Your task to perform on an android device: toggle pop-ups in chrome Image 0: 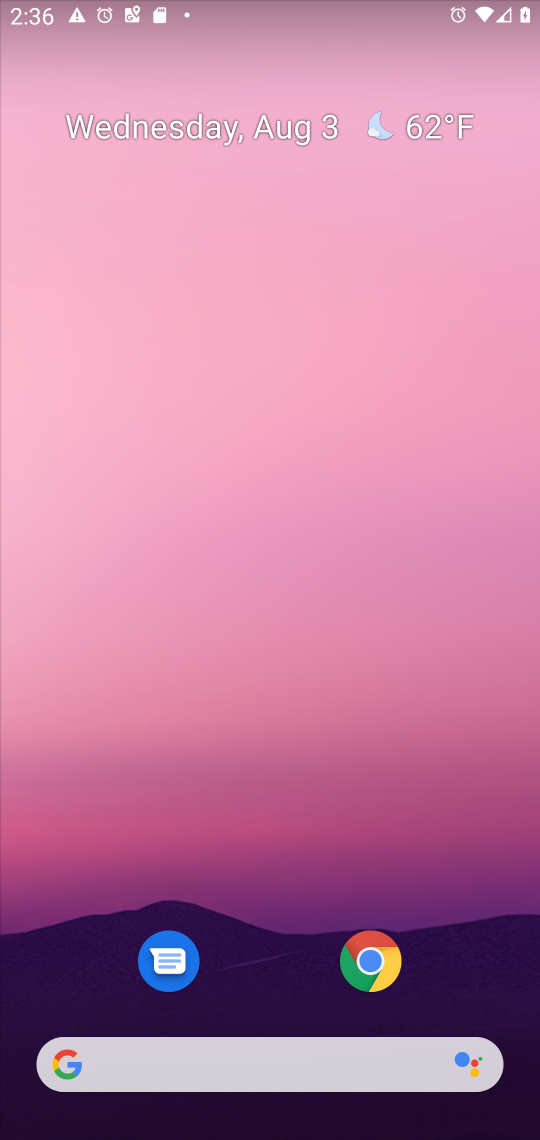
Step 0: click (364, 967)
Your task to perform on an android device: toggle pop-ups in chrome Image 1: 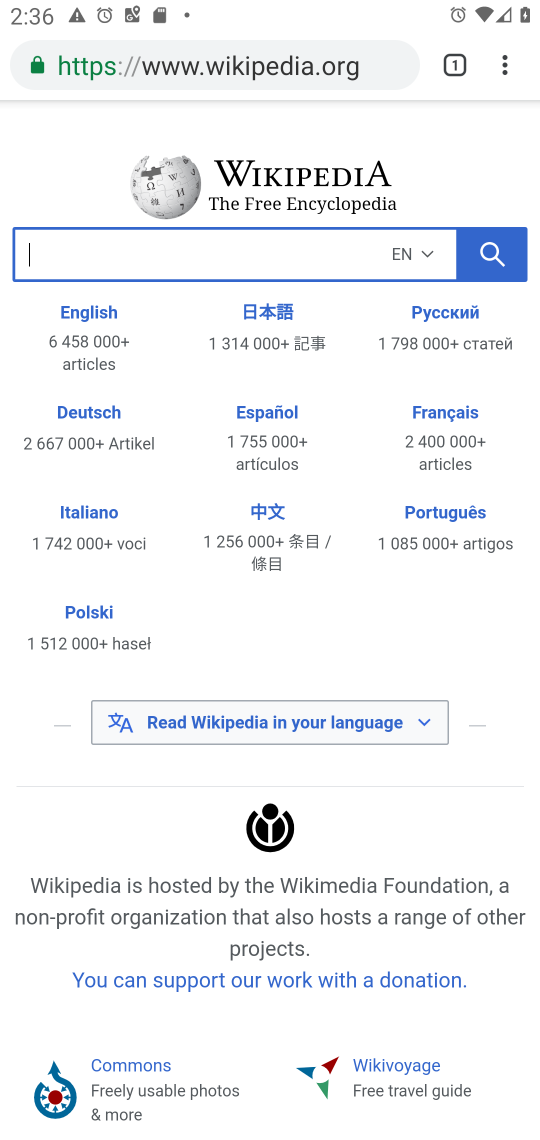
Step 1: drag from (505, 61) to (285, 796)
Your task to perform on an android device: toggle pop-ups in chrome Image 2: 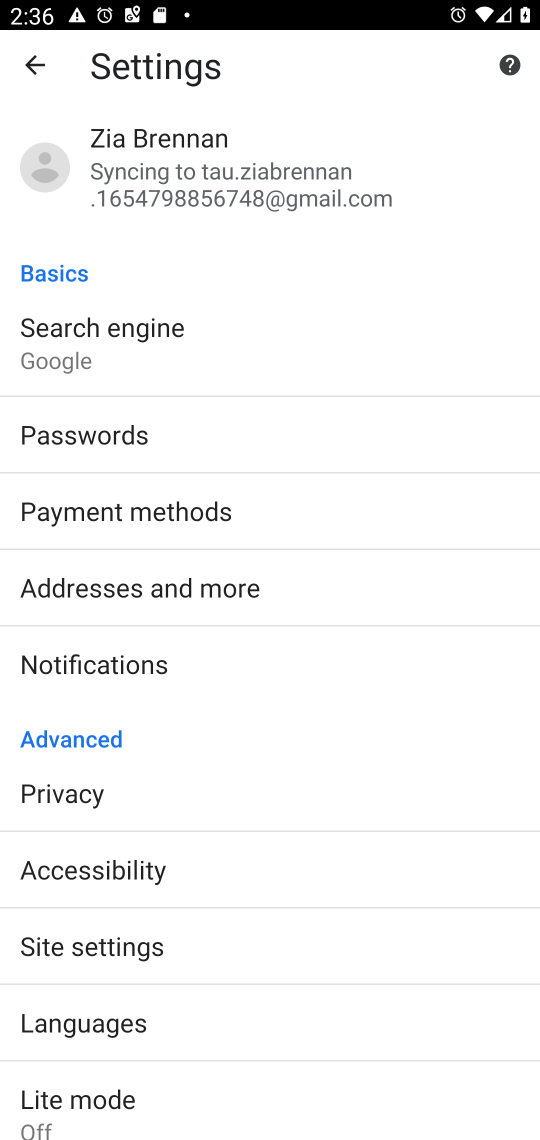
Step 2: click (103, 946)
Your task to perform on an android device: toggle pop-ups in chrome Image 3: 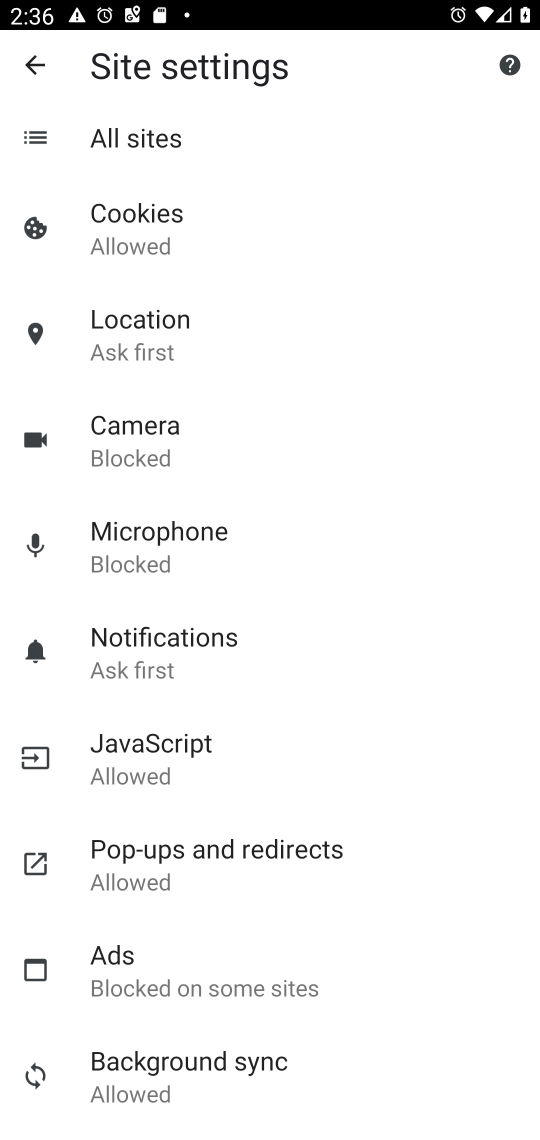
Step 3: click (143, 856)
Your task to perform on an android device: toggle pop-ups in chrome Image 4: 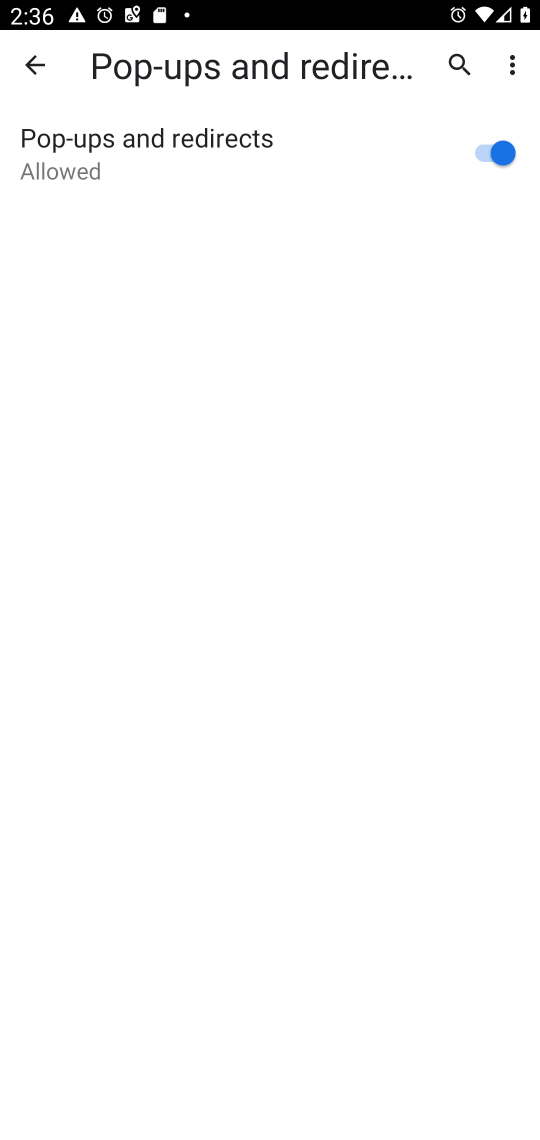
Step 4: click (496, 158)
Your task to perform on an android device: toggle pop-ups in chrome Image 5: 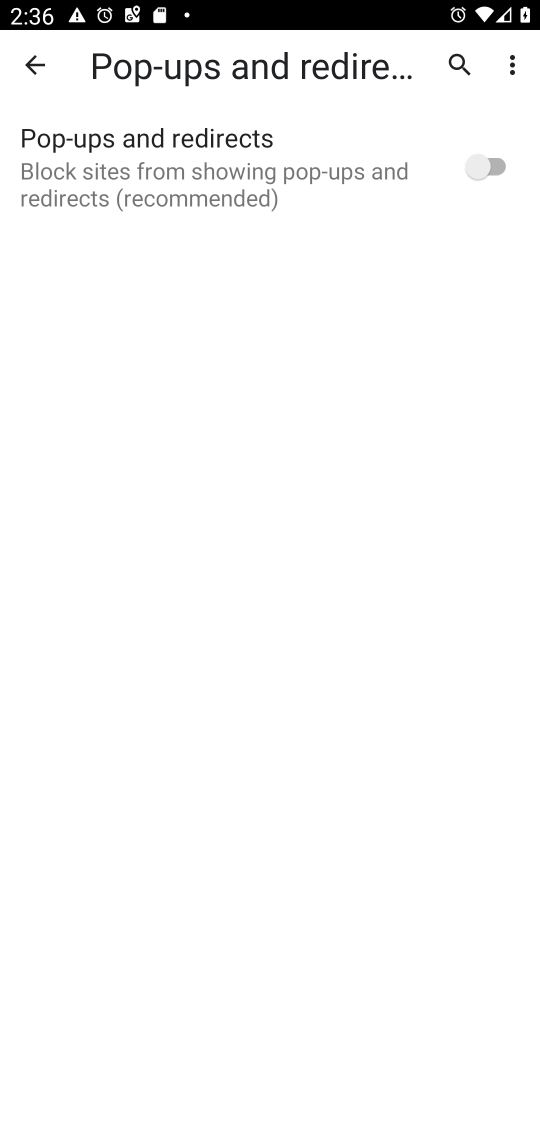
Step 5: task complete